Your task to perform on an android device: turn on wifi Image 0: 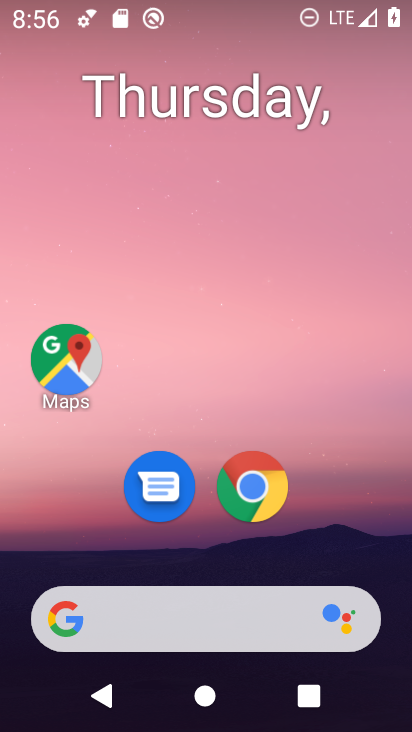
Step 0: drag from (123, 14) to (137, 504)
Your task to perform on an android device: turn on wifi Image 1: 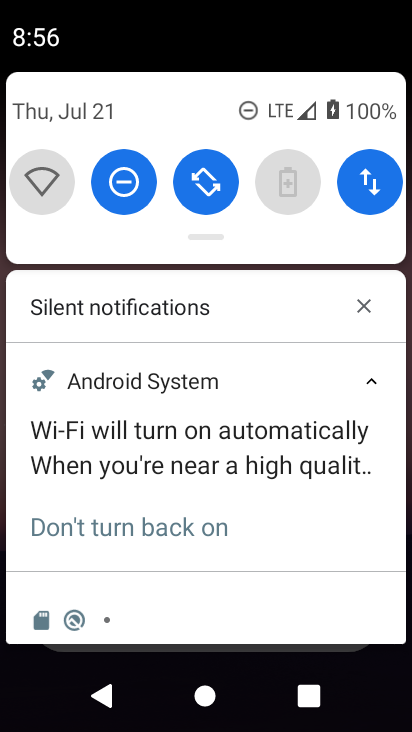
Step 1: click (43, 176)
Your task to perform on an android device: turn on wifi Image 2: 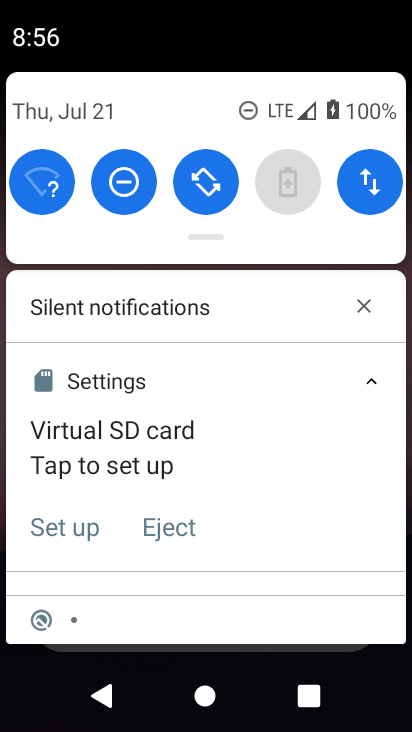
Step 2: task complete